Your task to perform on an android device: Open the web browser Image 0: 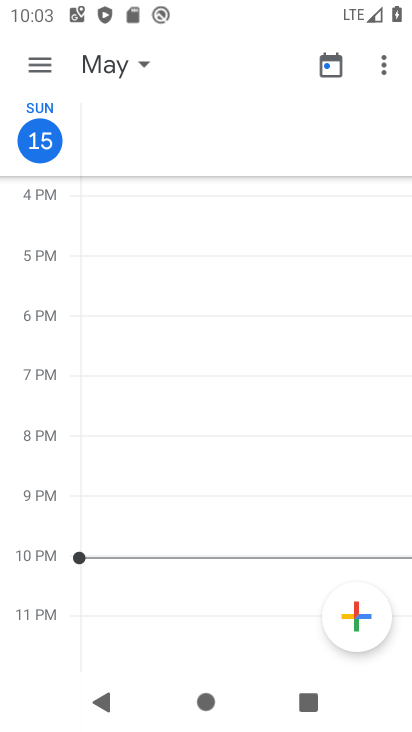
Step 0: press home button
Your task to perform on an android device: Open the web browser Image 1: 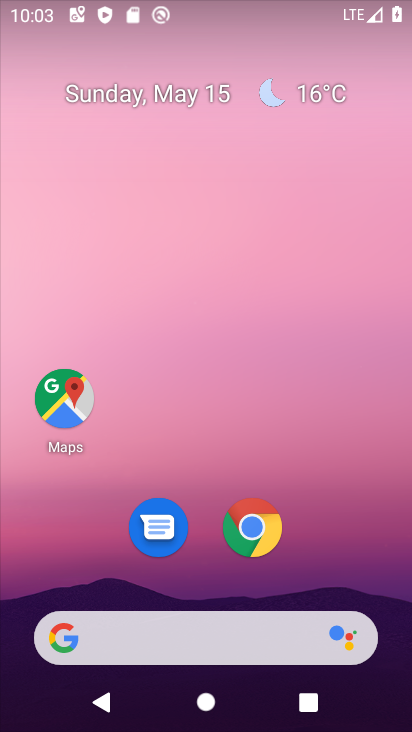
Step 1: click (259, 535)
Your task to perform on an android device: Open the web browser Image 2: 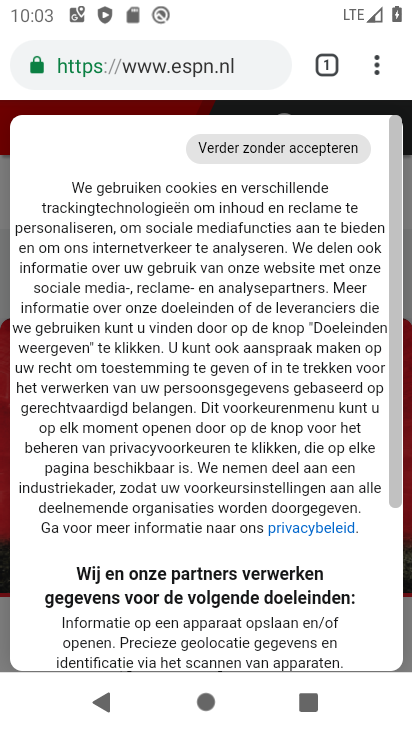
Step 2: task complete